Your task to perform on an android device: Is it going to rain this weekend? Image 0: 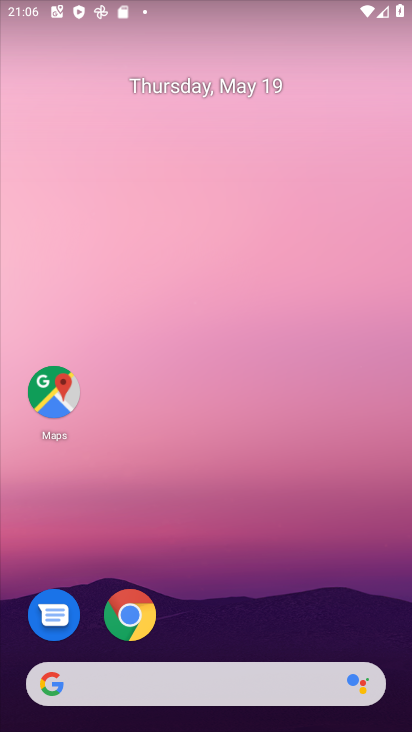
Step 0: drag from (241, 602) to (261, 44)
Your task to perform on an android device: Is it going to rain this weekend? Image 1: 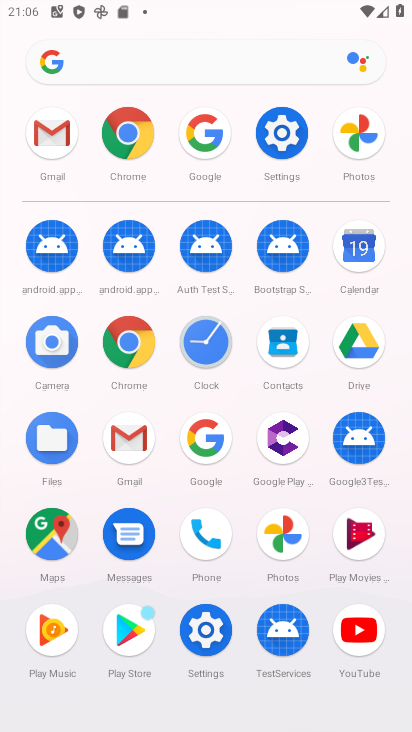
Step 1: click (207, 441)
Your task to perform on an android device: Is it going to rain this weekend? Image 2: 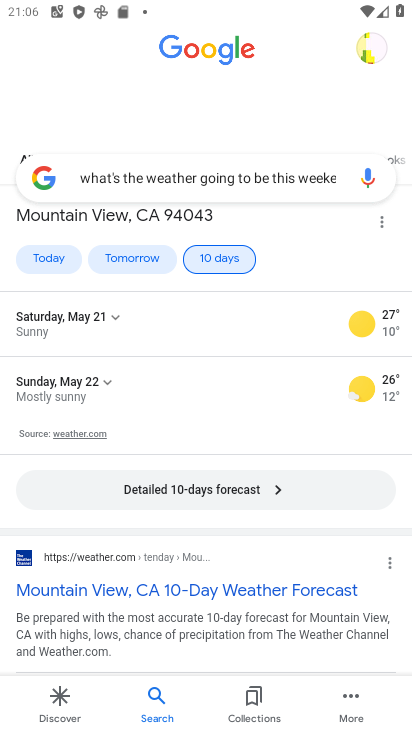
Step 2: task complete